Your task to perform on an android device: toggle sleep mode Image 0: 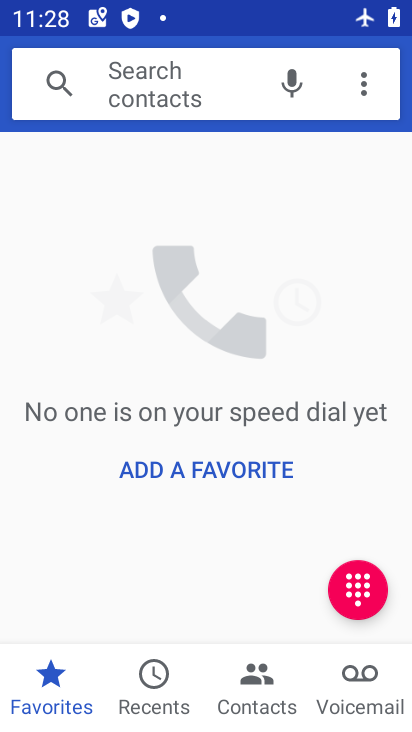
Step 0: press home button
Your task to perform on an android device: toggle sleep mode Image 1: 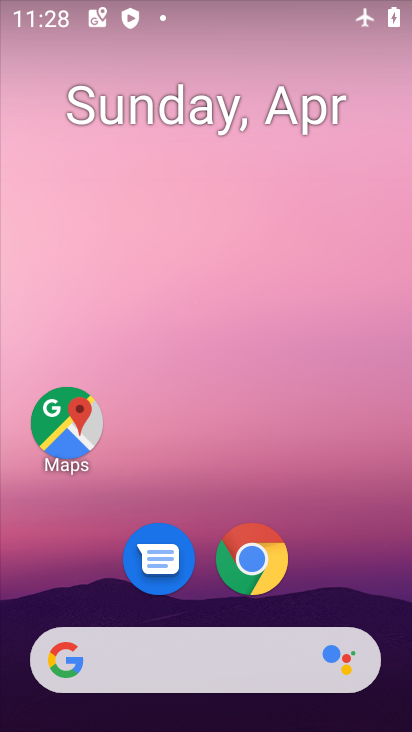
Step 1: drag from (329, 600) to (288, 17)
Your task to perform on an android device: toggle sleep mode Image 2: 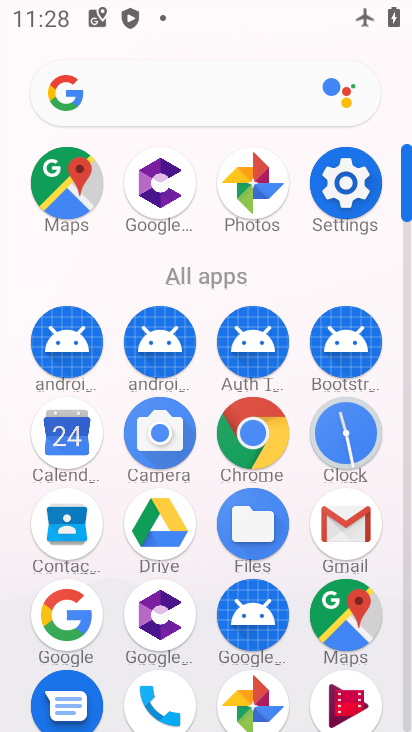
Step 2: click (340, 194)
Your task to perform on an android device: toggle sleep mode Image 3: 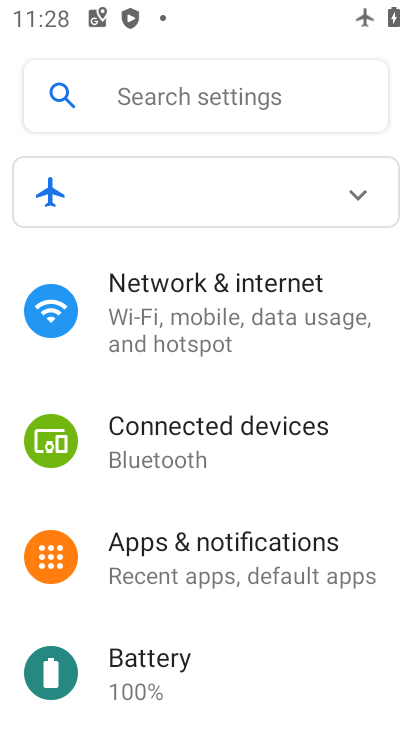
Step 3: drag from (208, 593) to (204, 430)
Your task to perform on an android device: toggle sleep mode Image 4: 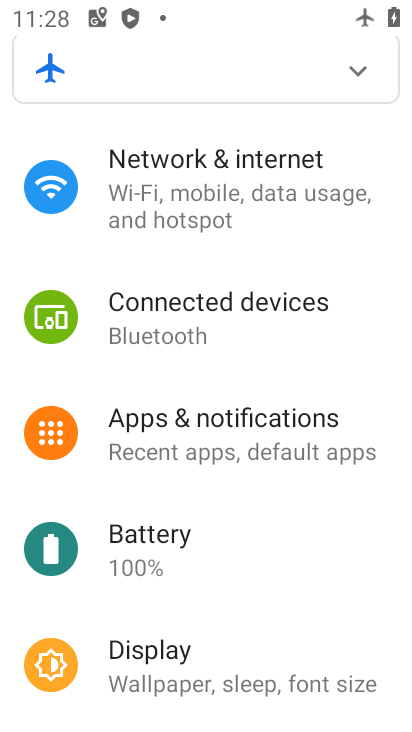
Step 4: drag from (233, 558) to (201, 389)
Your task to perform on an android device: toggle sleep mode Image 5: 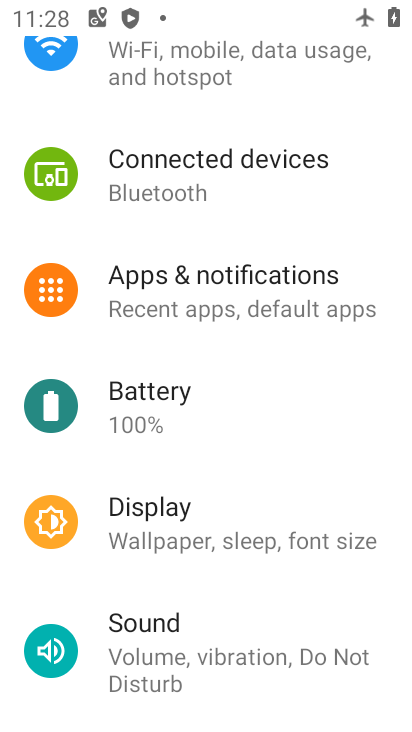
Step 5: drag from (234, 581) to (233, 507)
Your task to perform on an android device: toggle sleep mode Image 6: 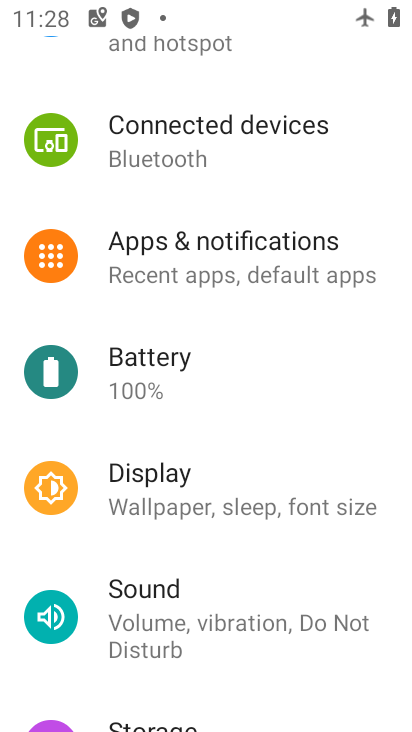
Step 6: click (268, 487)
Your task to perform on an android device: toggle sleep mode Image 7: 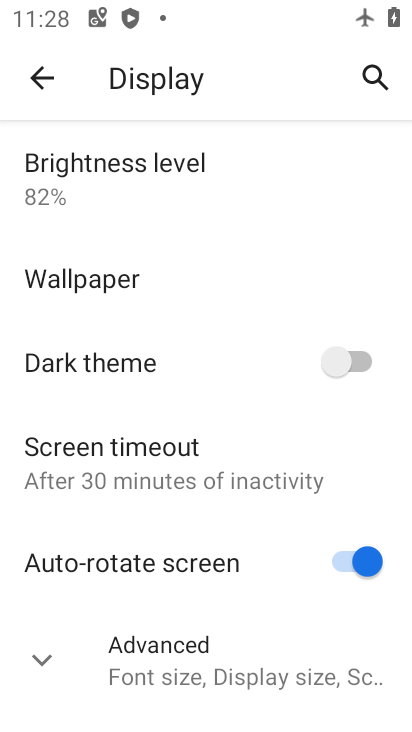
Step 7: drag from (191, 633) to (191, 491)
Your task to perform on an android device: toggle sleep mode Image 8: 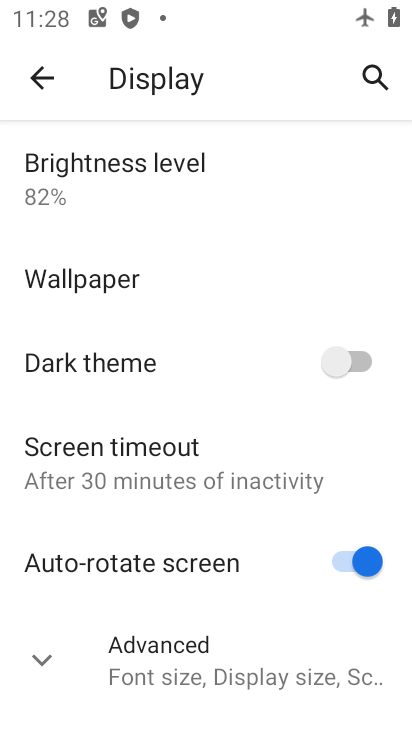
Step 8: click (226, 661)
Your task to perform on an android device: toggle sleep mode Image 9: 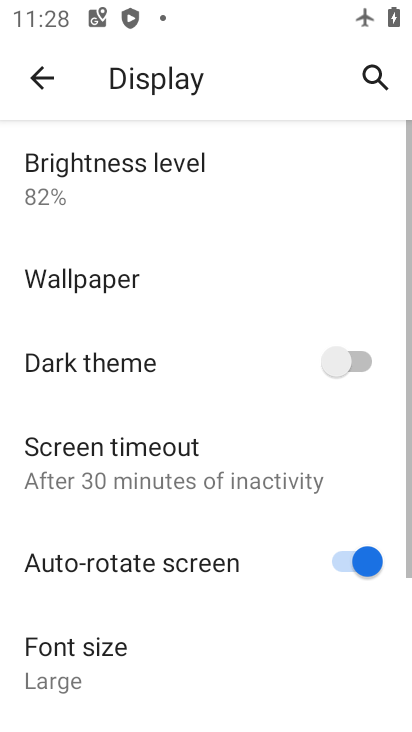
Step 9: task complete